Your task to perform on an android device: change the clock display to digital Image 0: 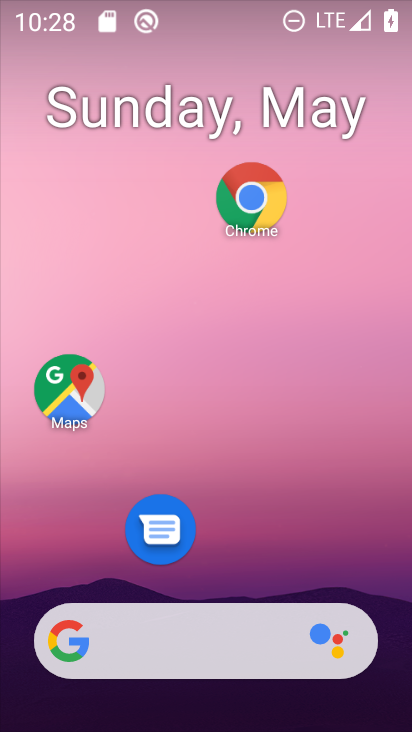
Step 0: drag from (328, 503) to (360, 44)
Your task to perform on an android device: change the clock display to digital Image 1: 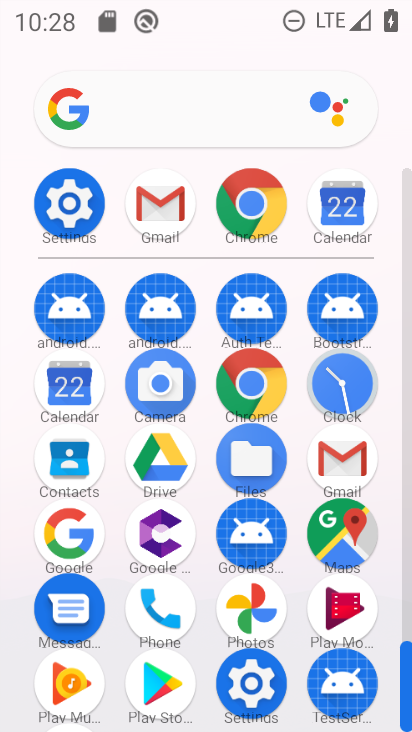
Step 1: click (330, 365)
Your task to perform on an android device: change the clock display to digital Image 2: 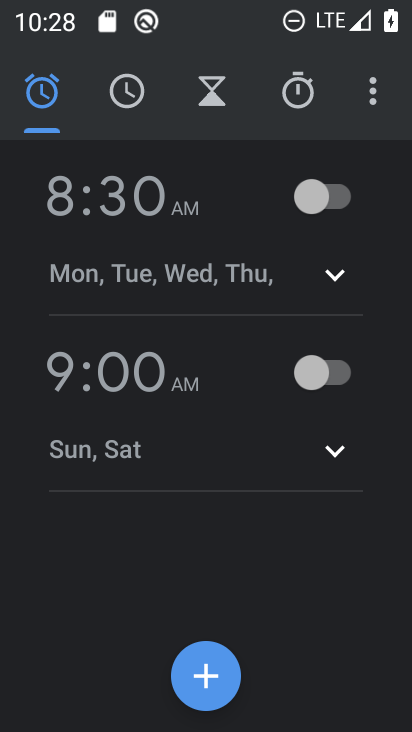
Step 2: click (385, 104)
Your task to perform on an android device: change the clock display to digital Image 3: 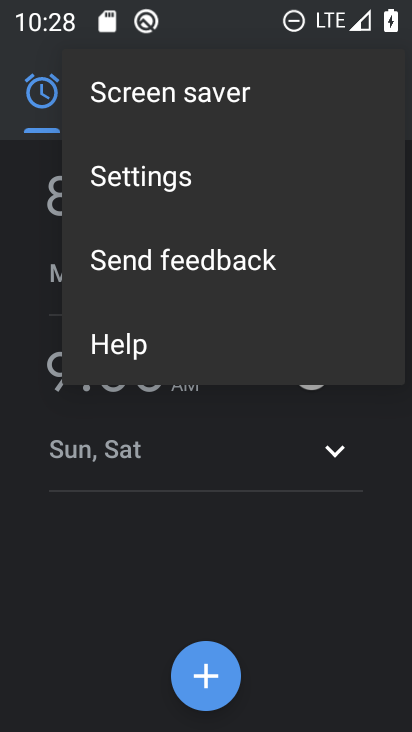
Step 3: click (224, 179)
Your task to perform on an android device: change the clock display to digital Image 4: 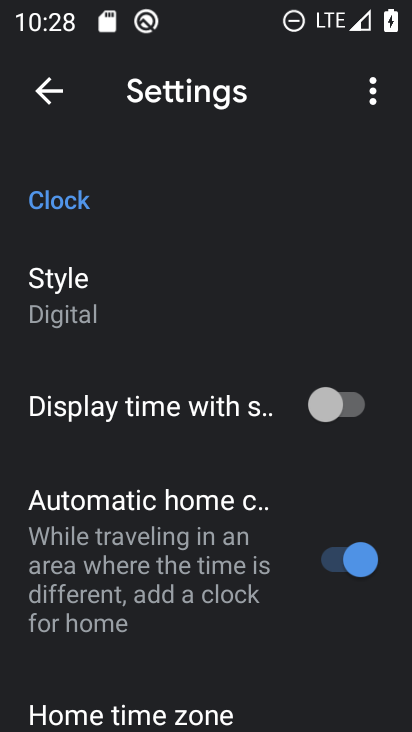
Step 4: click (159, 290)
Your task to perform on an android device: change the clock display to digital Image 5: 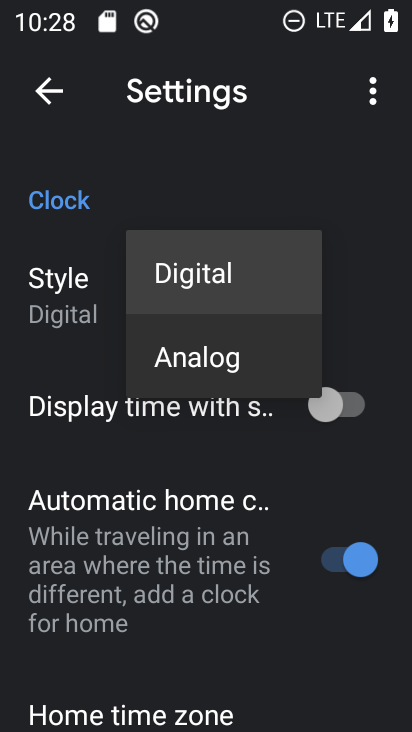
Step 5: click (206, 292)
Your task to perform on an android device: change the clock display to digital Image 6: 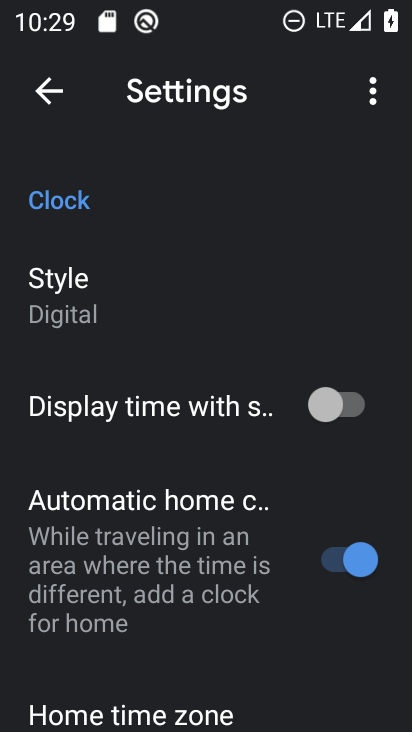
Step 6: task complete